Your task to perform on an android device: turn off sleep mode Image 0: 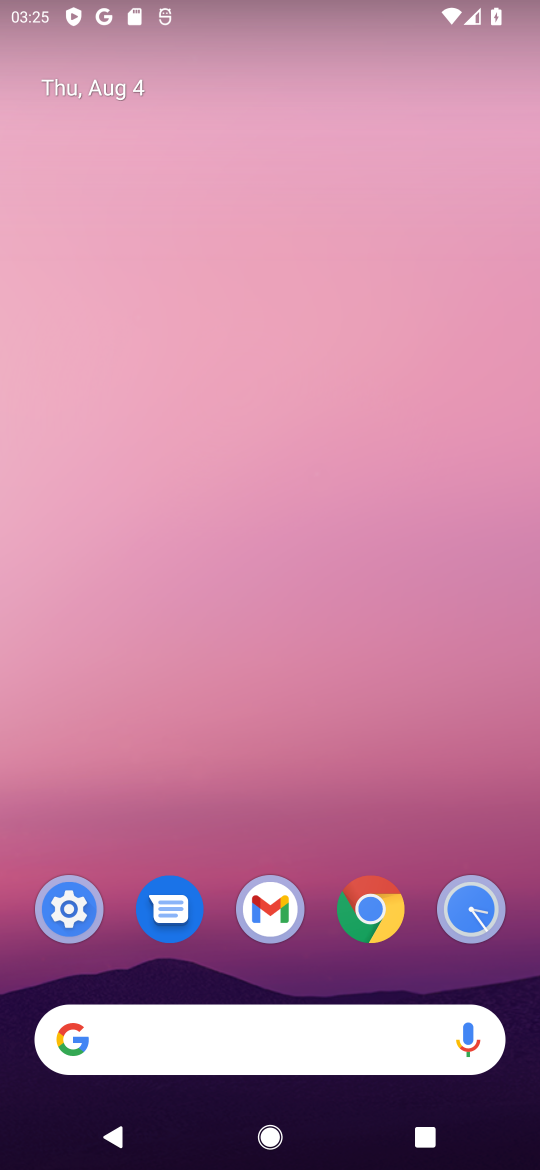
Step 0: click (66, 901)
Your task to perform on an android device: turn off sleep mode Image 1: 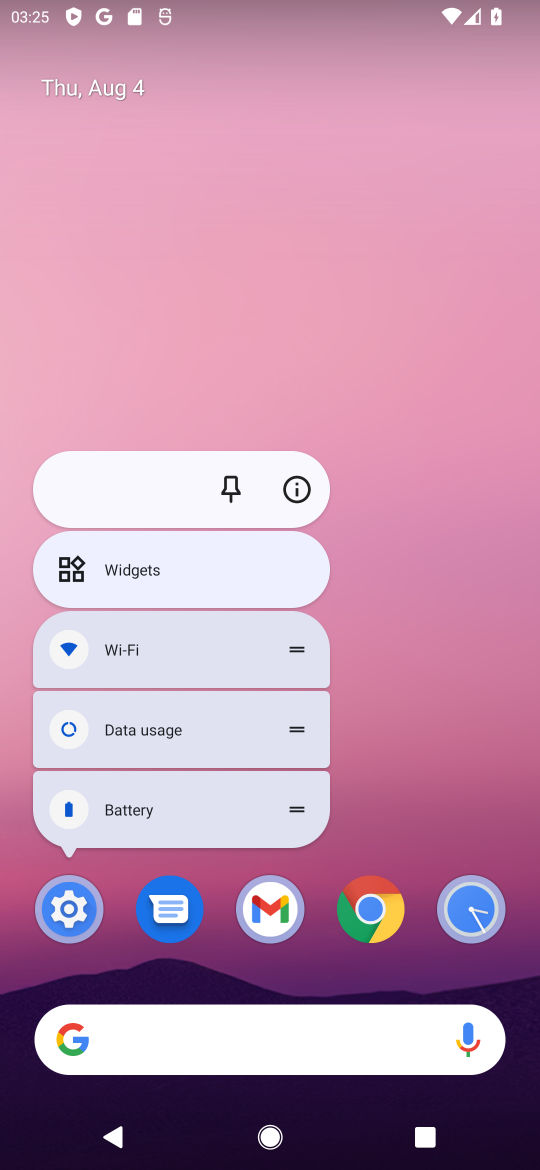
Step 1: click (64, 912)
Your task to perform on an android device: turn off sleep mode Image 2: 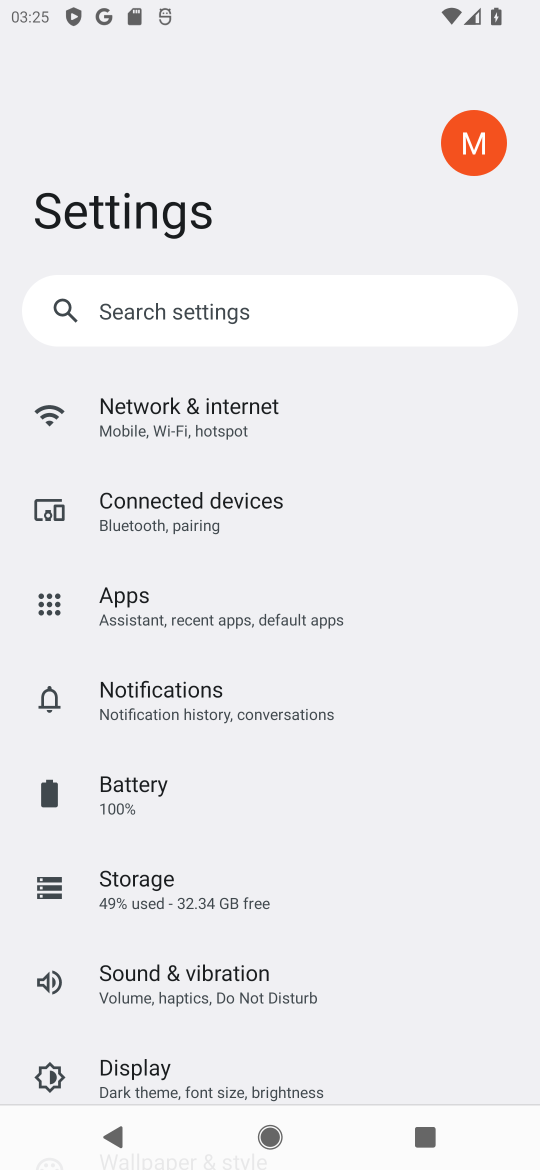
Step 2: drag from (290, 856) to (356, 645)
Your task to perform on an android device: turn off sleep mode Image 3: 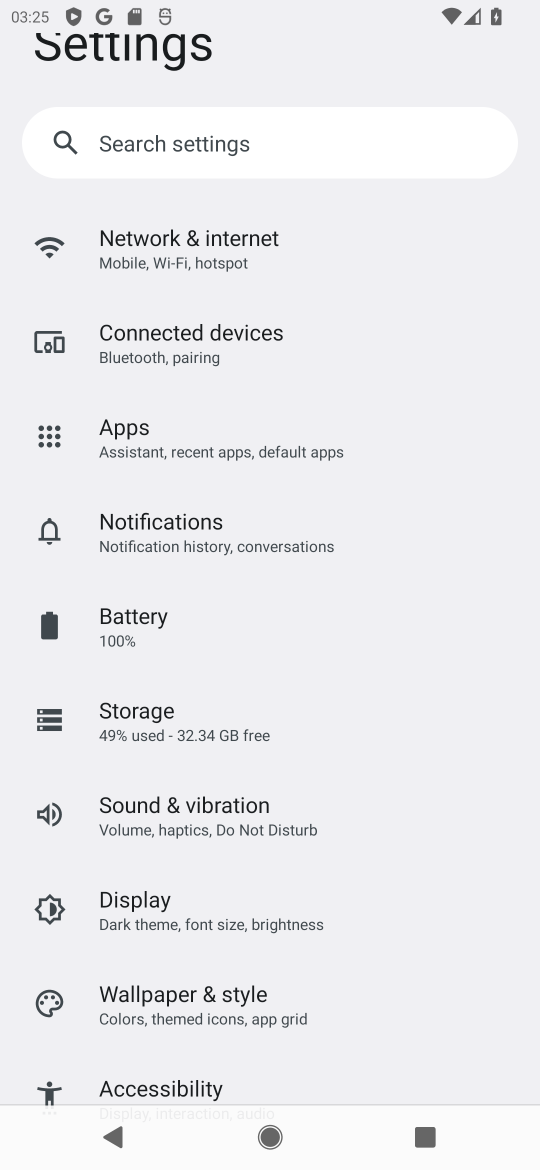
Step 3: drag from (320, 1027) to (538, 733)
Your task to perform on an android device: turn off sleep mode Image 4: 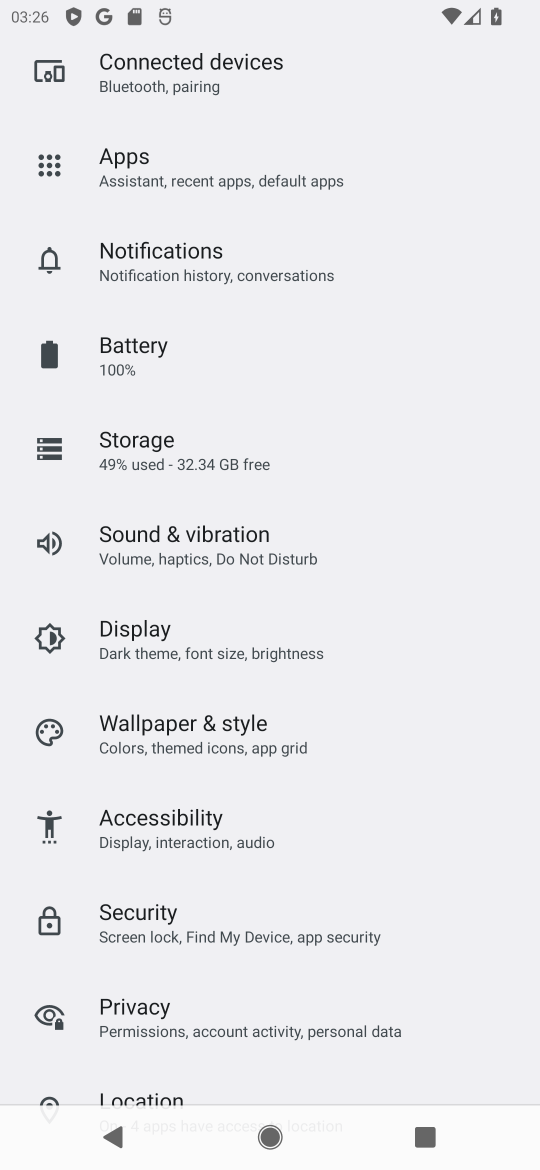
Step 4: click (199, 644)
Your task to perform on an android device: turn off sleep mode Image 5: 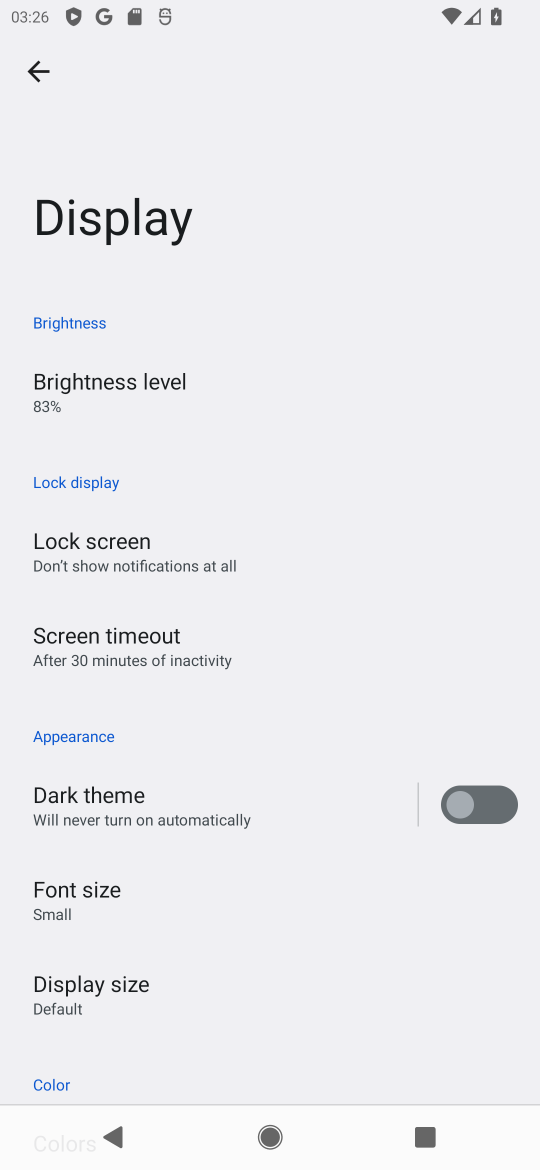
Step 5: task complete